Your task to perform on an android device: star an email in the gmail app Image 0: 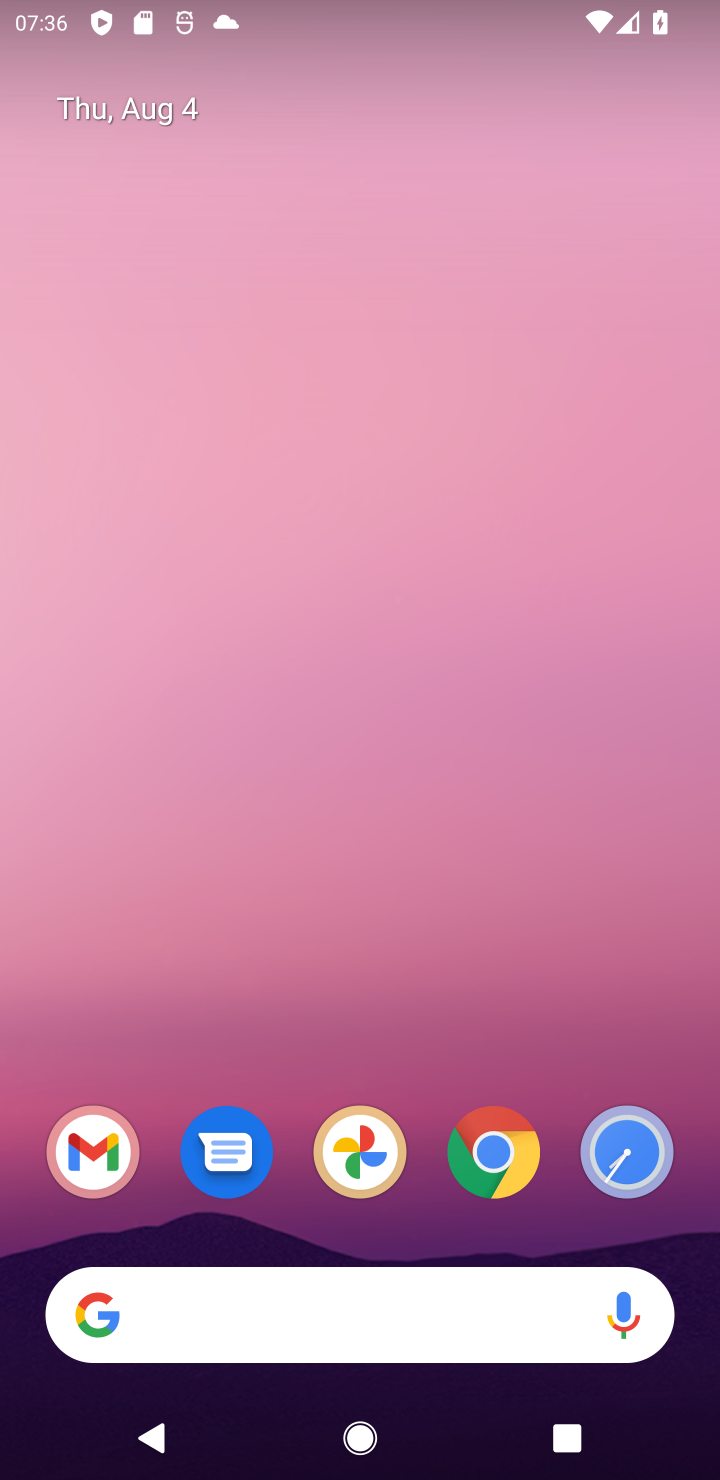
Step 0: drag from (363, 768) to (628, 67)
Your task to perform on an android device: star an email in the gmail app Image 1: 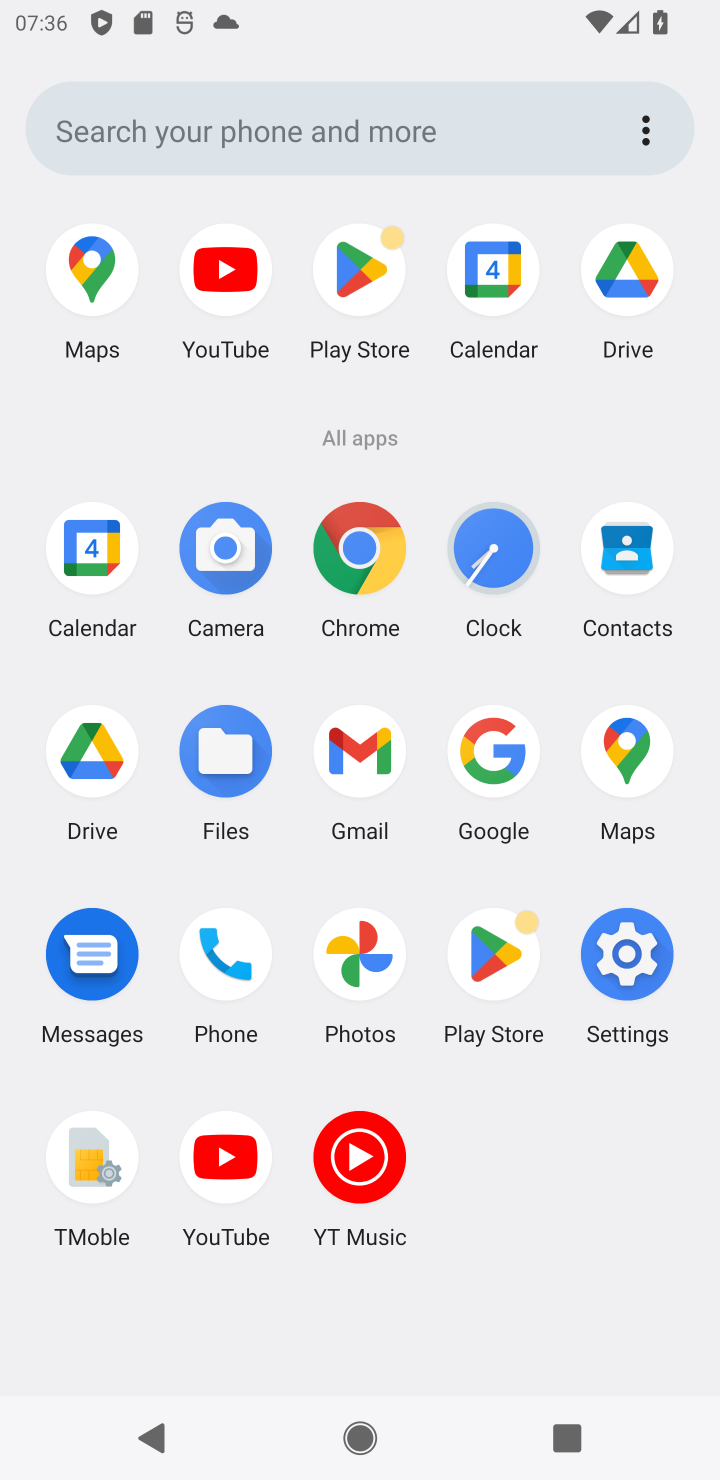
Step 1: click (340, 731)
Your task to perform on an android device: star an email in the gmail app Image 2: 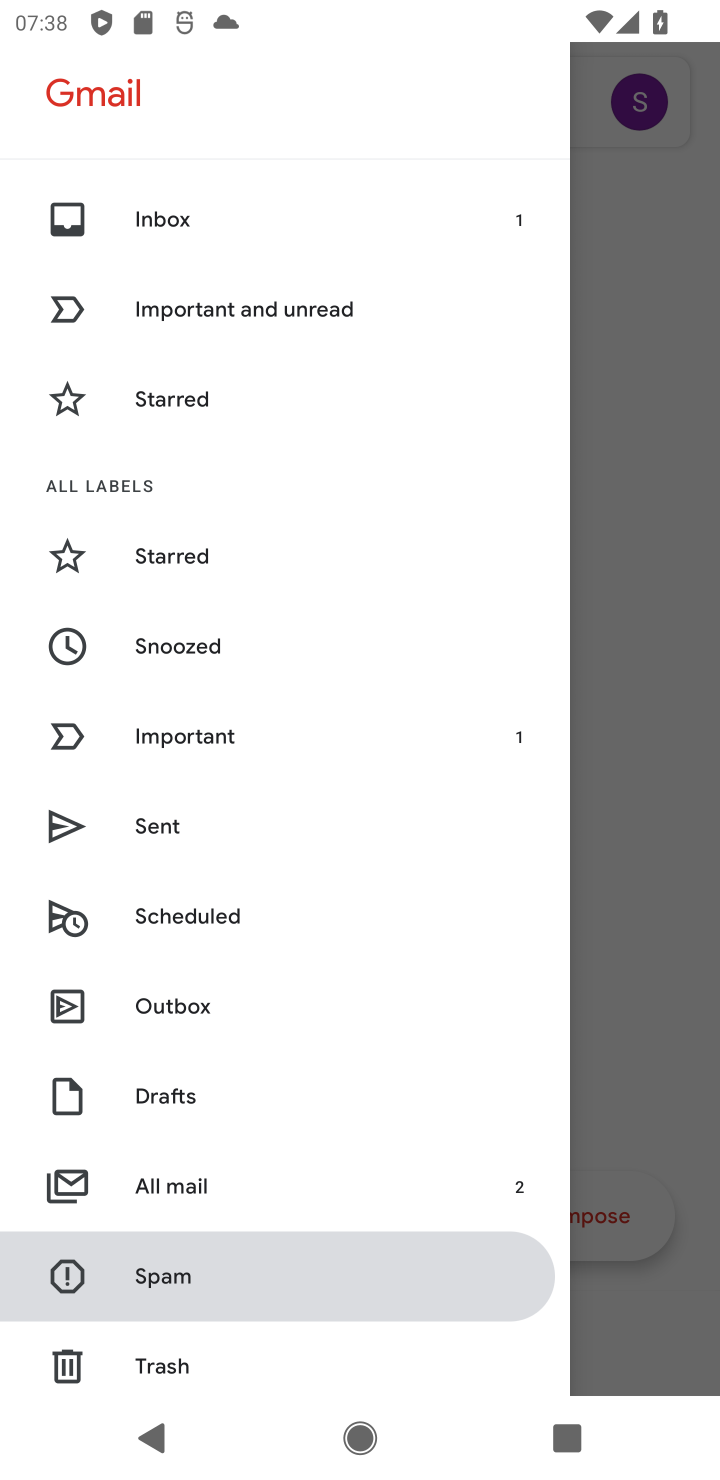
Step 2: click (267, 234)
Your task to perform on an android device: star an email in the gmail app Image 3: 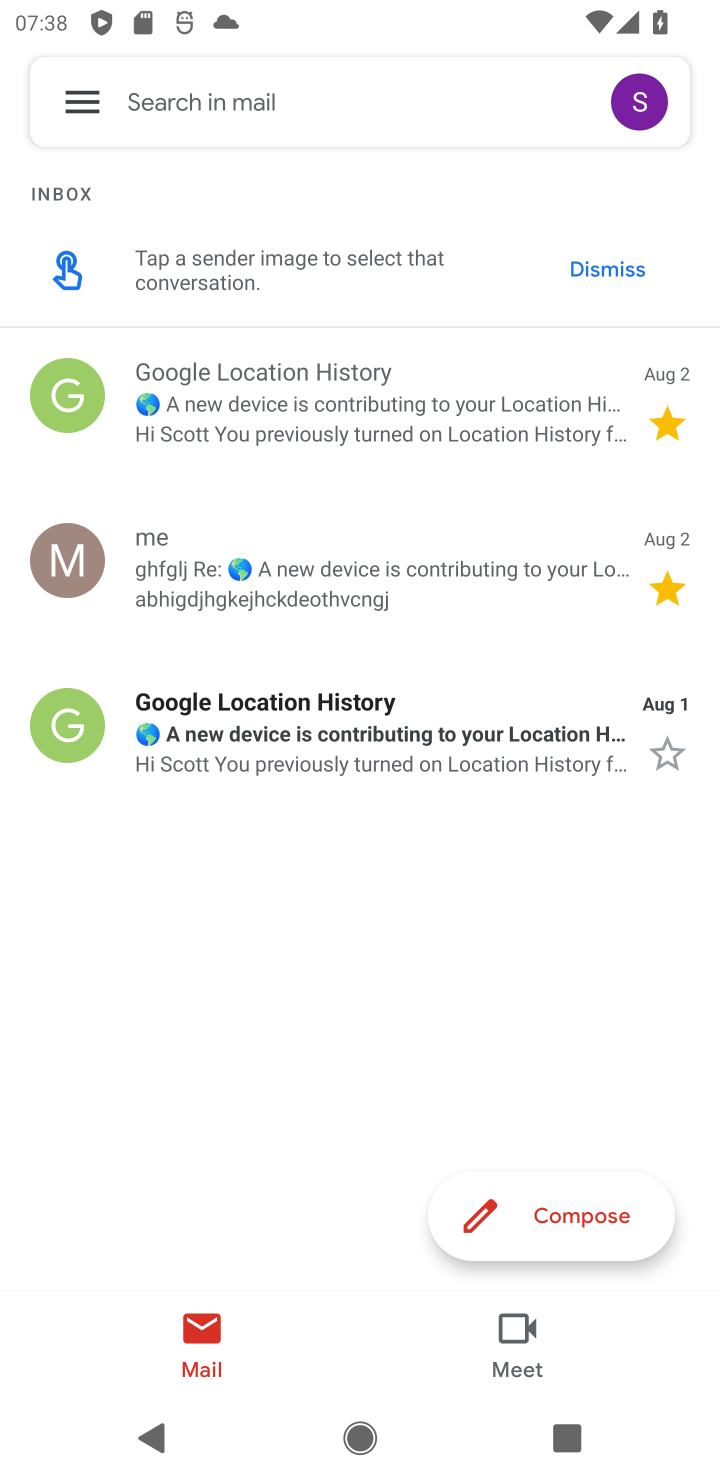
Step 3: click (679, 750)
Your task to perform on an android device: star an email in the gmail app Image 4: 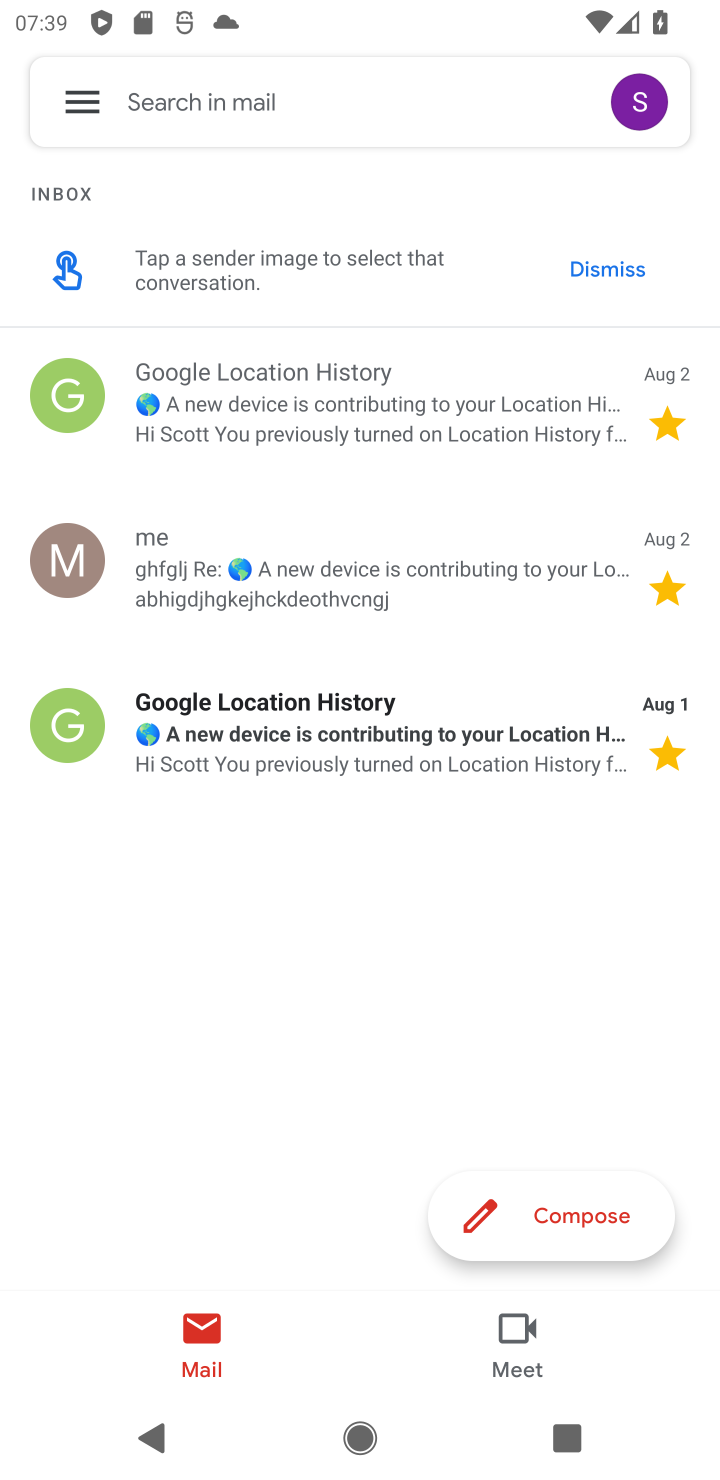
Step 4: task complete